Your task to perform on an android device: toggle notifications settings in the gmail app Image 0: 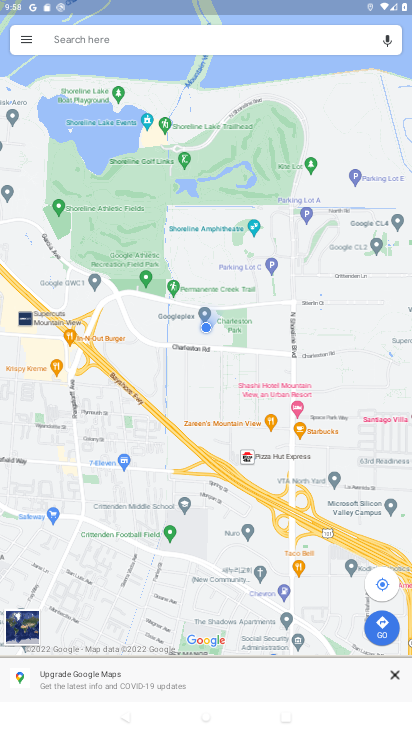
Step 0: press home button
Your task to perform on an android device: toggle notifications settings in the gmail app Image 1: 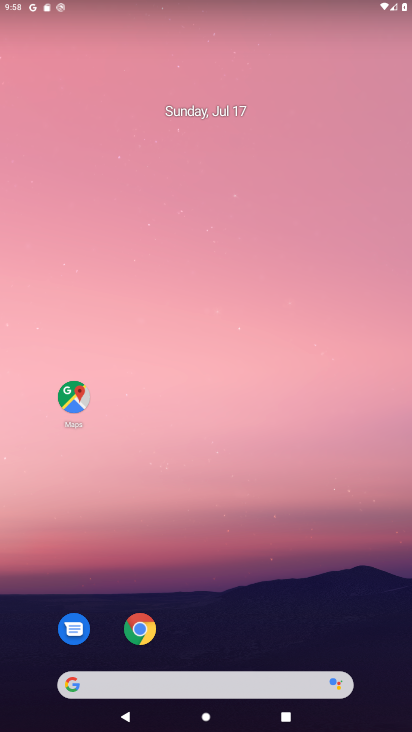
Step 1: drag from (192, 682) to (259, 159)
Your task to perform on an android device: toggle notifications settings in the gmail app Image 2: 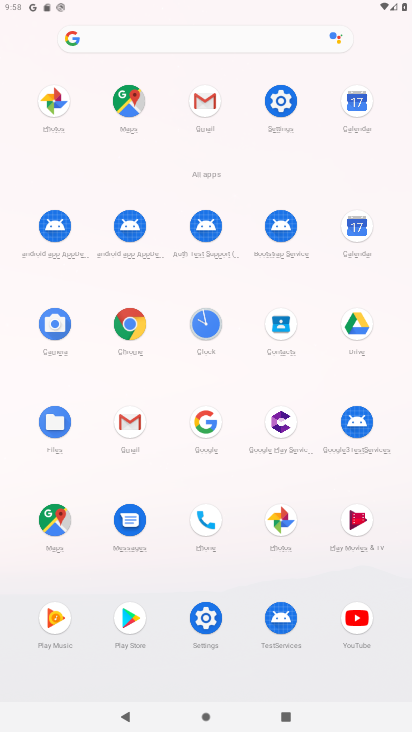
Step 2: click (203, 98)
Your task to perform on an android device: toggle notifications settings in the gmail app Image 3: 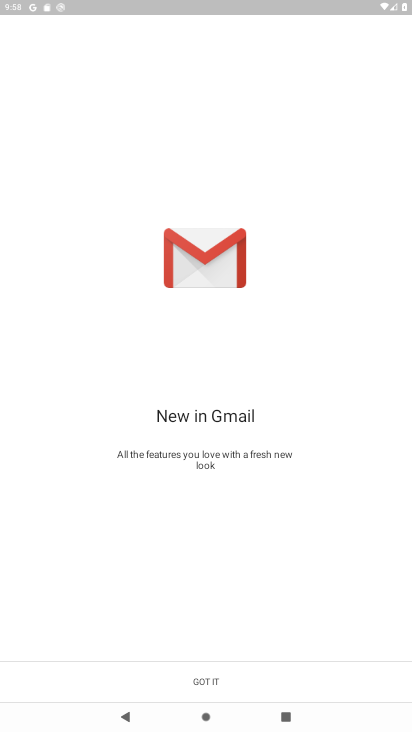
Step 3: click (205, 683)
Your task to perform on an android device: toggle notifications settings in the gmail app Image 4: 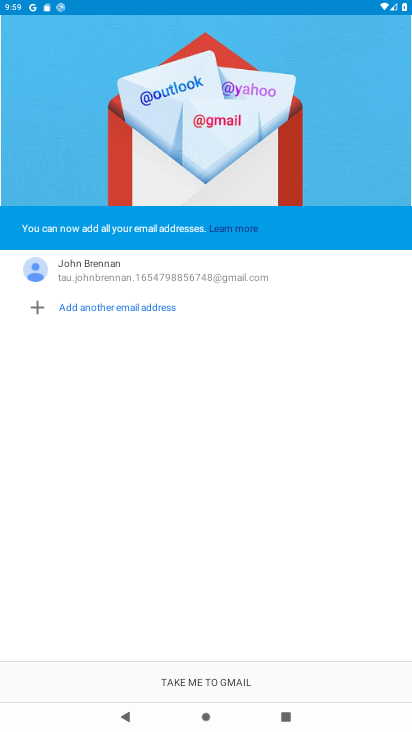
Step 4: click (203, 691)
Your task to perform on an android device: toggle notifications settings in the gmail app Image 5: 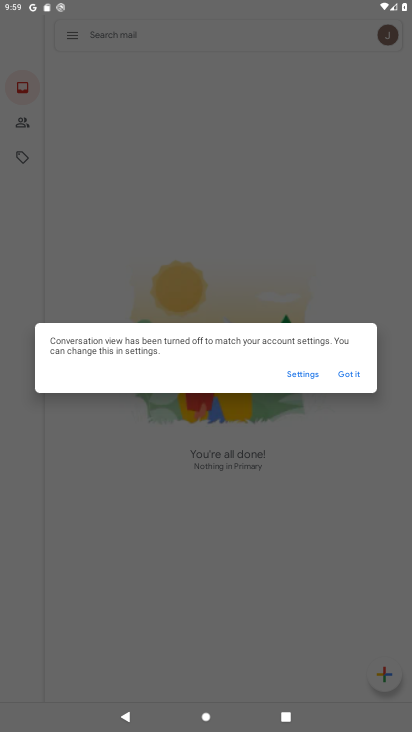
Step 5: click (353, 373)
Your task to perform on an android device: toggle notifications settings in the gmail app Image 6: 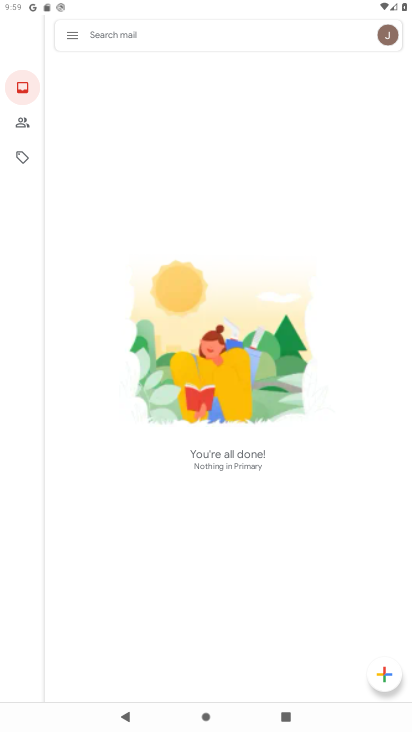
Step 6: click (67, 28)
Your task to perform on an android device: toggle notifications settings in the gmail app Image 7: 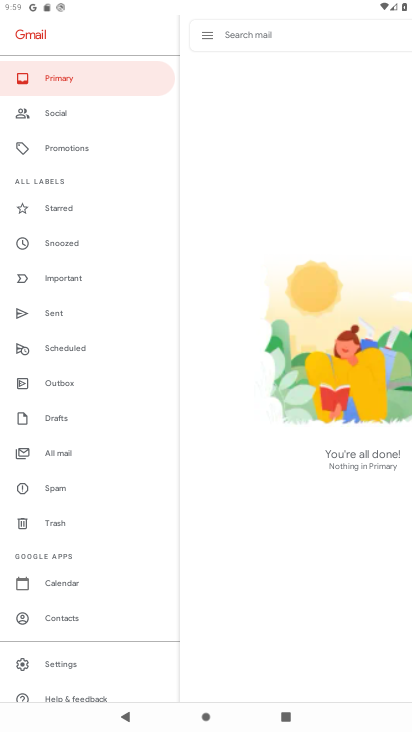
Step 7: drag from (119, 606) to (125, 523)
Your task to perform on an android device: toggle notifications settings in the gmail app Image 8: 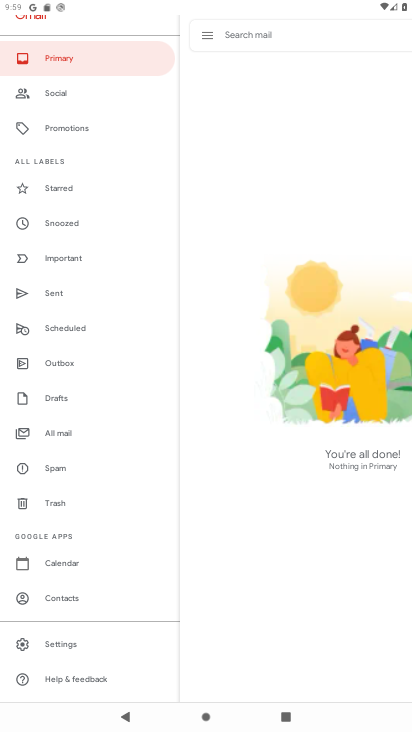
Step 8: click (58, 639)
Your task to perform on an android device: toggle notifications settings in the gmail app Image 9: 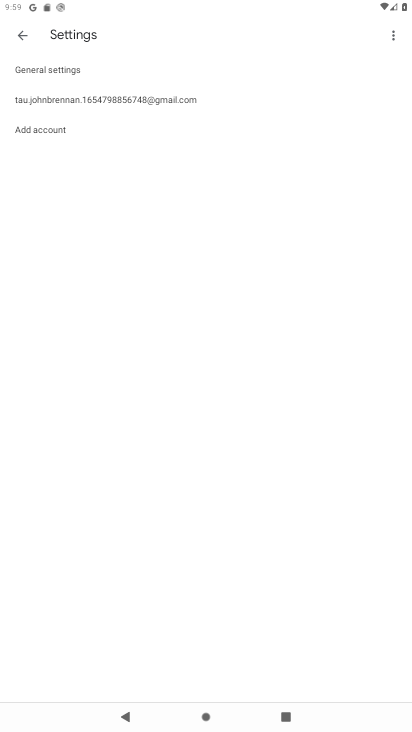
Step 9: click (118, 102)
Your task to perform on an android device: toggle notifications settings in the gmail app Image 10: 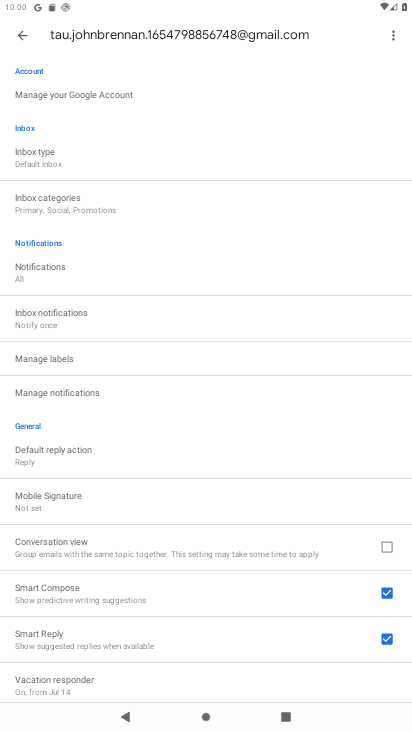
Step 10: click (56, 395)
Your task to perform on an android device: toggle notifications settings in the gmail app Image 11: 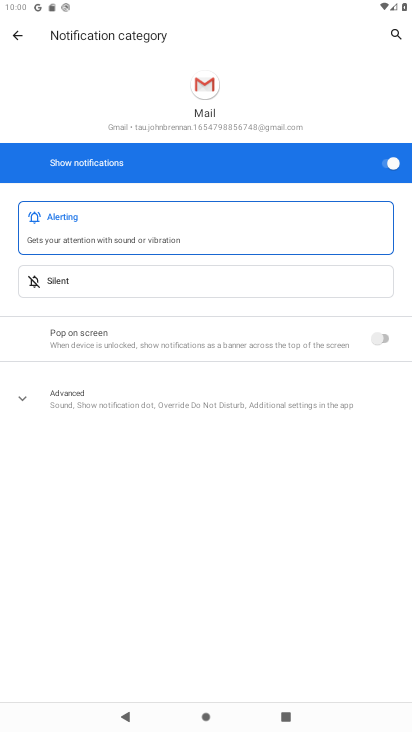
Step 11: click (384, 165)
Your task to perform on an android device: toggle notifications settings in the gmail app Image 12: 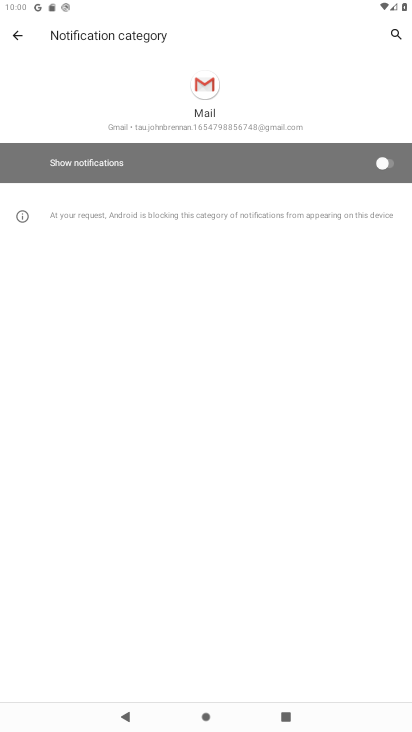
Step 12: task complete